Your task to perform on an android device: Go to eBay Image 0: 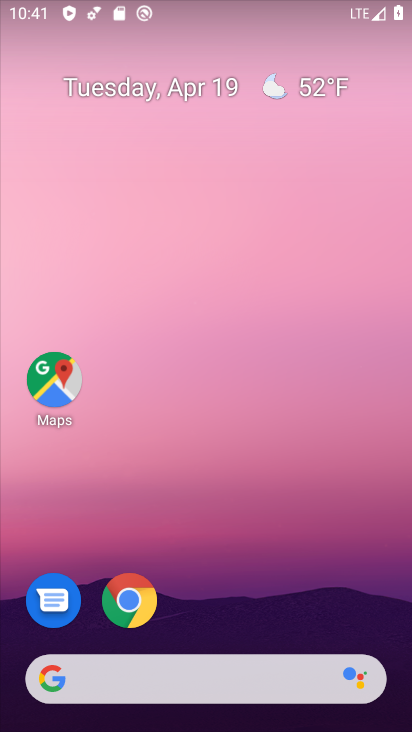
Step 0: drag from (201, 649) to (170, 2)
Your task to perform on an android device: Go to eBay Image 1: 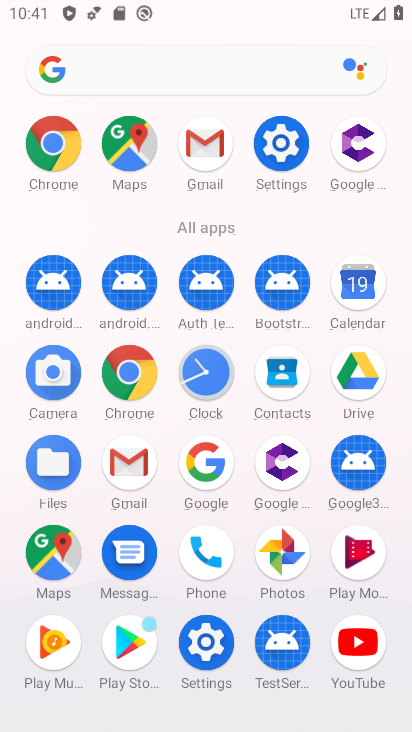
Step 1: click (133, 379)
Your task to perform on an android device: Go to eBay Image 2: 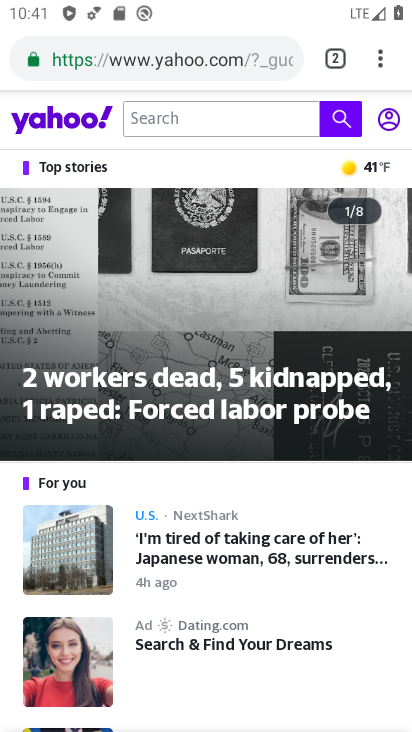
Step 2: click (318, 66)
Your task to perform on an android device: Go to eBay Image 3: 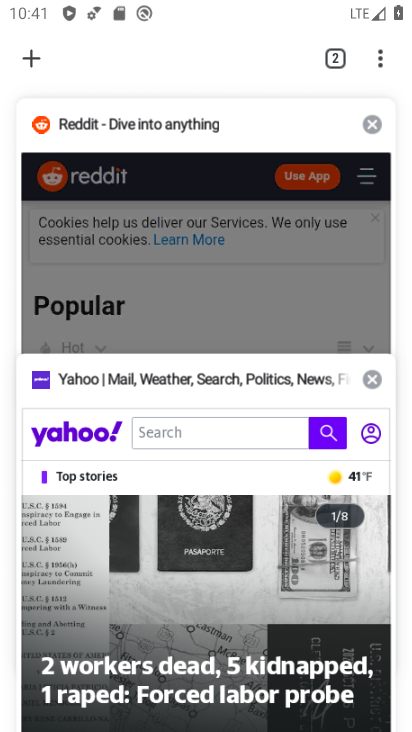
Step 3: click (28, 56)
Your task to perform on an android device: Go to eBay Image 4: 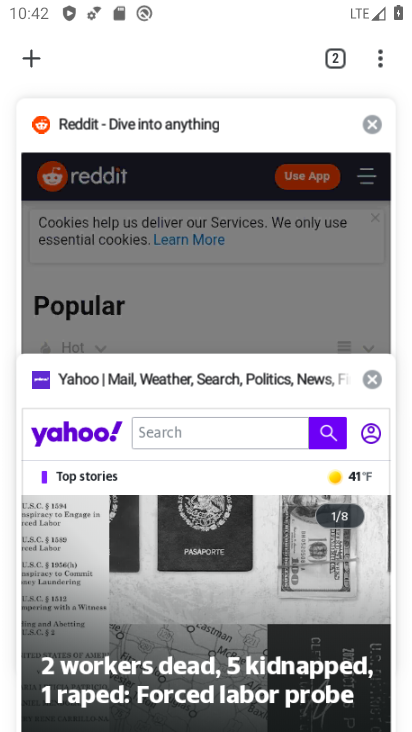
Step 4: click (26, 51)
Your task to perform on an android device: Go to eBay Image 5: 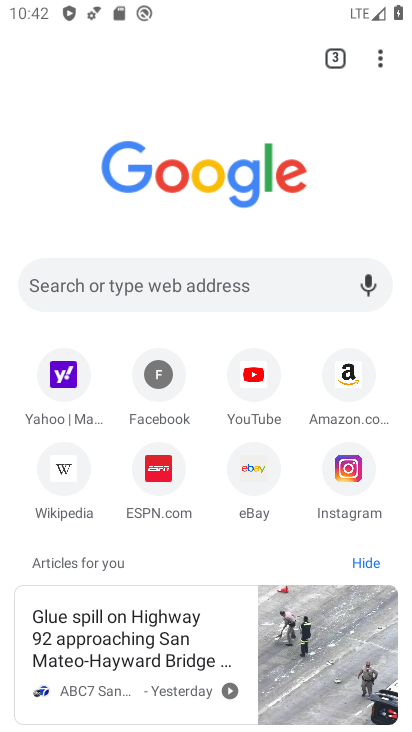
Step 5: click (261, 461)
Your task to perform on an android device: Go to eBay Image 6: 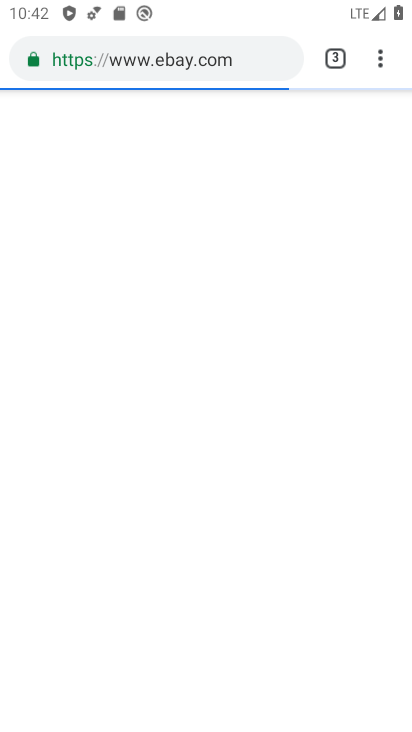
Step 6: task complete